Your task to perform on an android device: change text size in settings app Image 0: 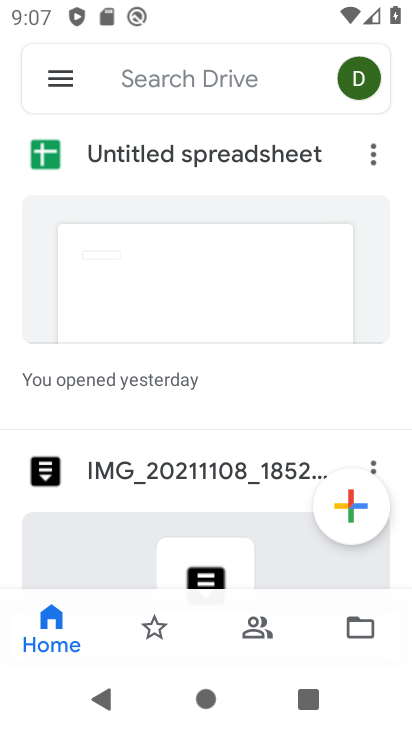
Step 0: press home button
Your task to perform on an android device: change text size in settings app Image 1: 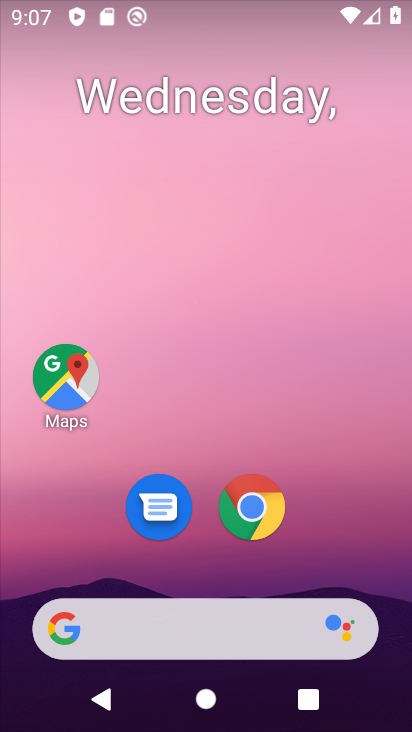
Step 1: drag from (349, 479) to (132, 26)
Your task to perform on an android device: change text size in settings app Image 2: 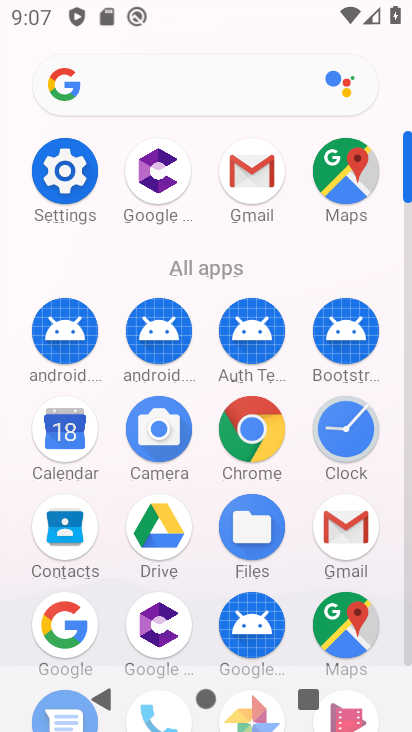
Step 2: click (54, 199)
Your task to perform on an android device: change text size in settings app Image 3: 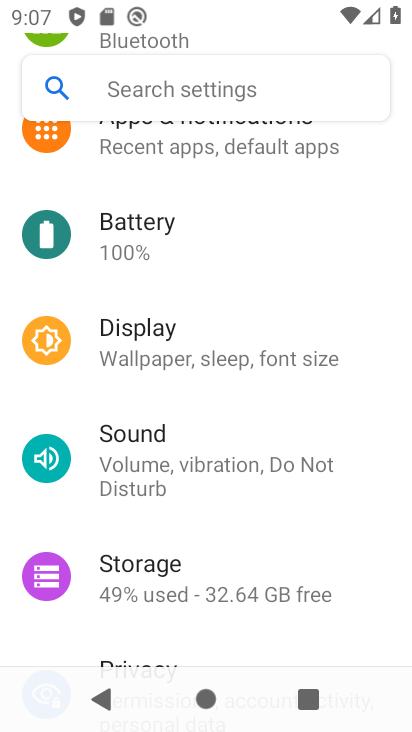
Step 3: drag from (160, 435) to (213, 574)
Your task to perform on an android device: change text size in settings app Image 4: 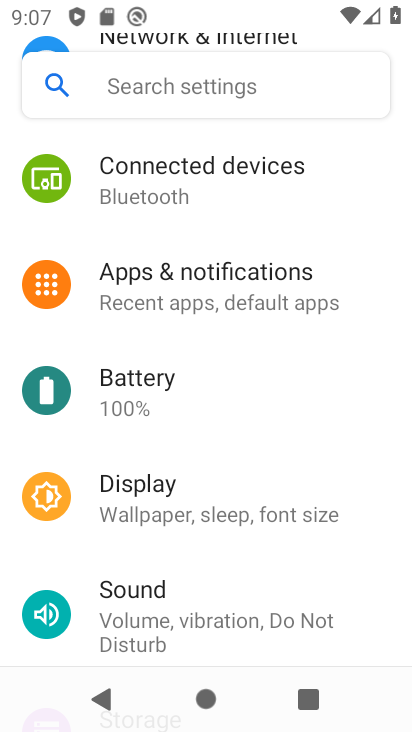
Step 4: drag from (211, 299) to (298, 239)
Your task to perform on an android device: change text size in settings app Image 5: 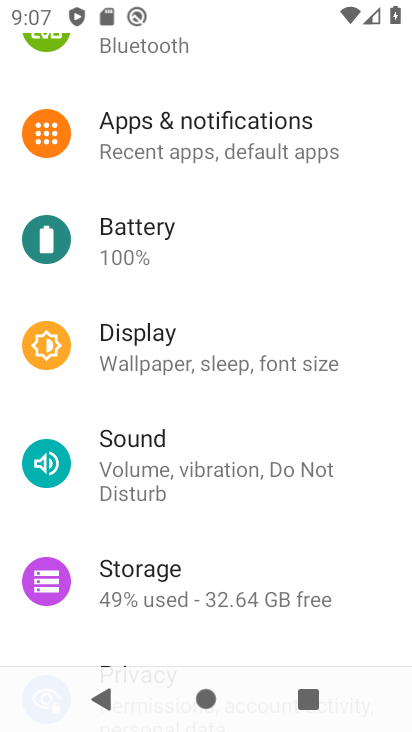
Step 5: drag from (194, 432) to (293, 162)
Your task to perform on an android device: change text size in settings app Image 6: 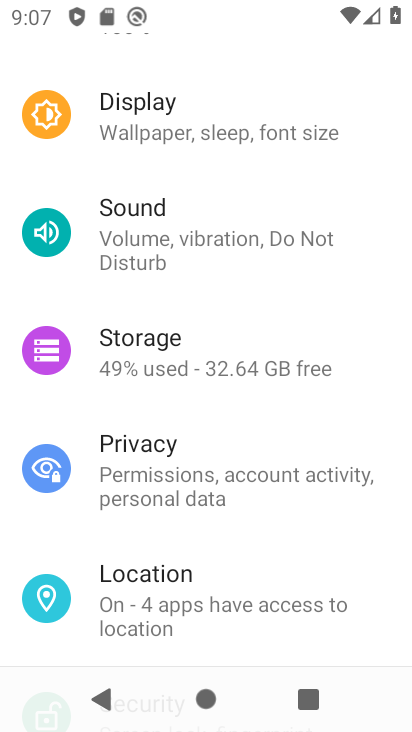
Step 6: click (187, 140)
Your task to perform on an android device: change text size in settings app Image 7: 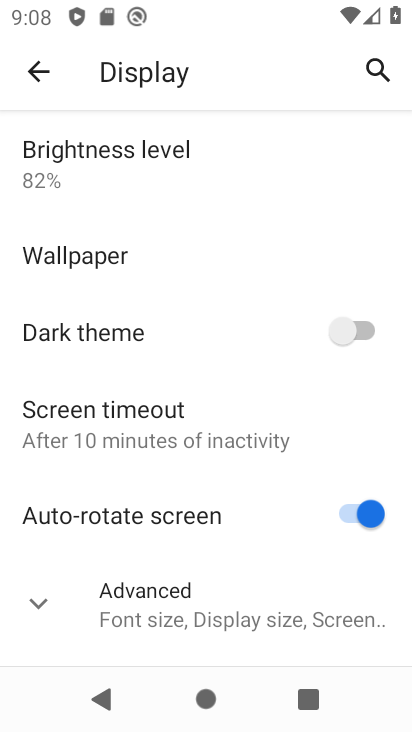
Step 7: click (175, 590)
Your task to perform on an android device: change text size in settings app Image 8: 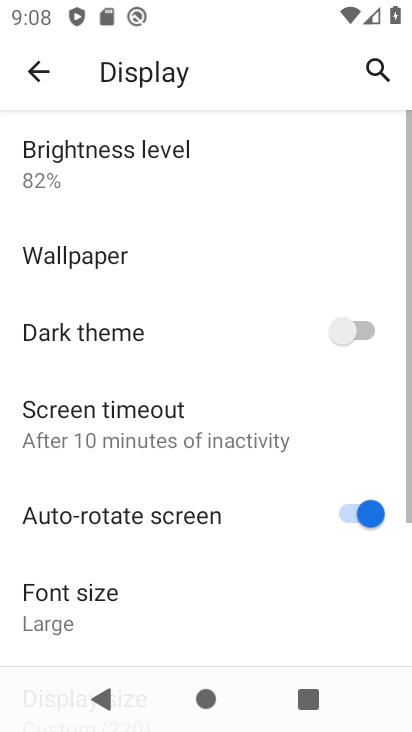
Step 8: drag from (154, 594) to (193, 294)
Your task to perform on an android device: change text size in settings app Image 9: 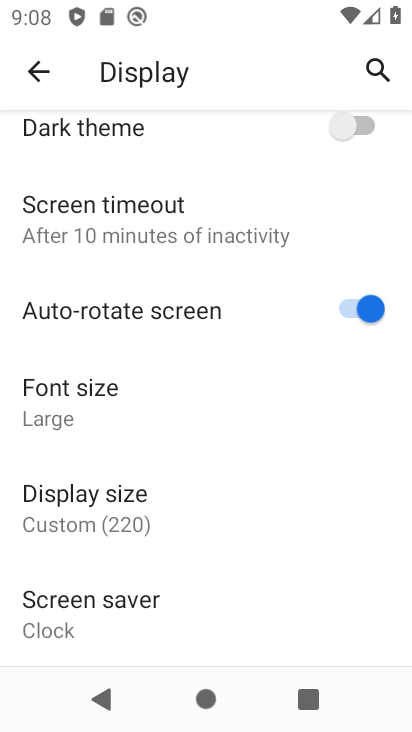
Step 9: click (96, 378)
Your task to perform on an android device: change text size in settings app Image 10: 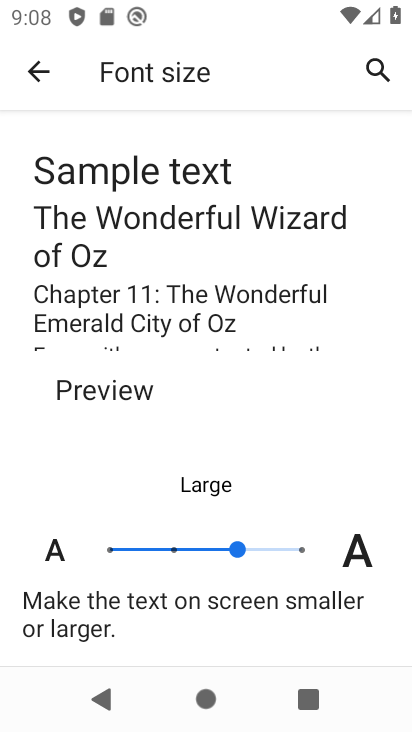
Step 10: click (117, 551)
Your task to perform on an android device: change text size in settings app Image 11: 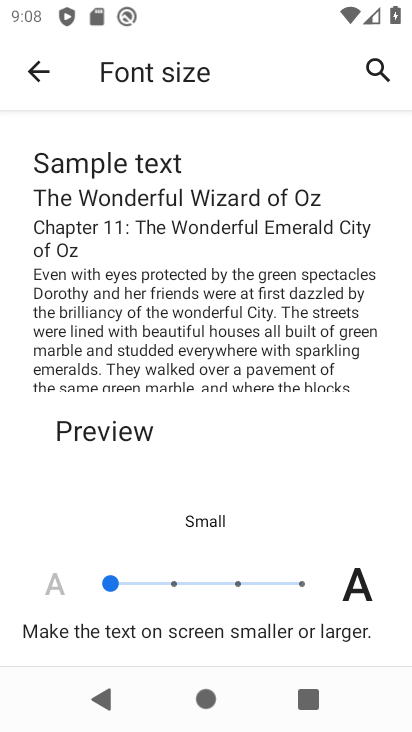
Step 11: task complete